Your task to perform on an android device: What's the weather going to be tomorrow? Image 0: 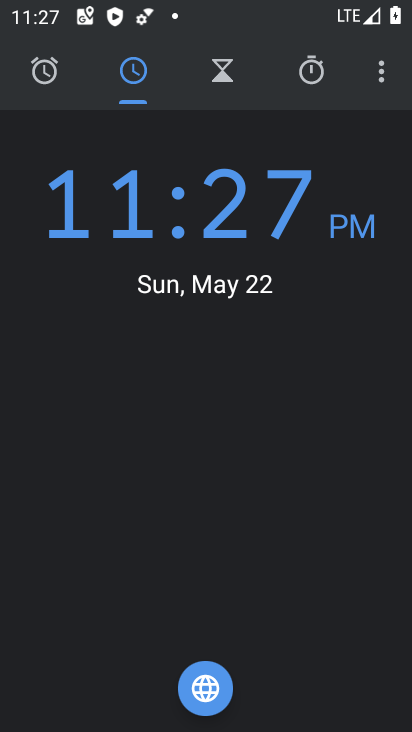
Step 0: press home button
Your task to perform on an android device: What's the weather going to be tomorrow? Image 1: 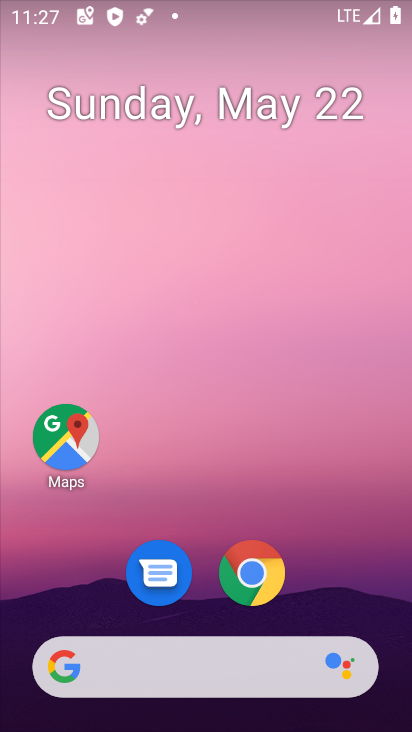
Step 1: click (222, 667)
Your task to perform on an android device: What's the weather going to be tomorrow? Image 2: 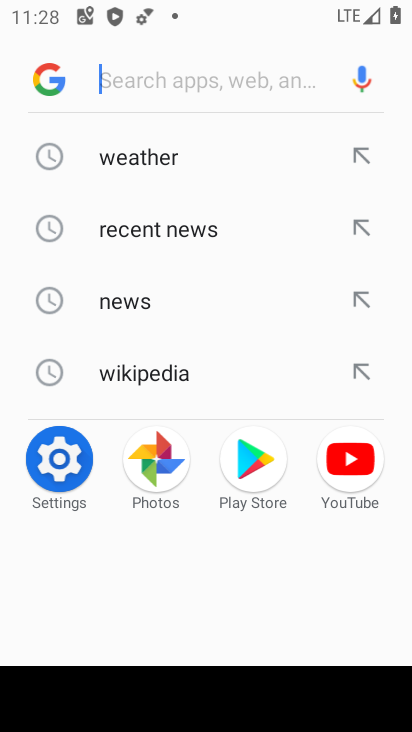
Step 2: type "what's the weather going to be tomorrow"
Your task to perform on an android device: What's the weather going to be tomorrow? Image 3: 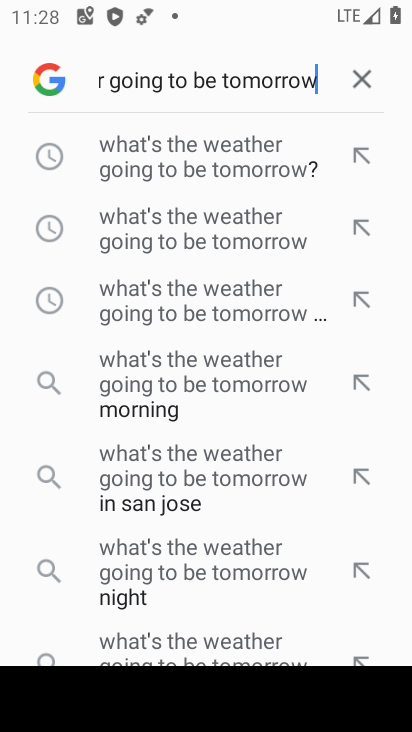
Step 3: click (154, 158)
Your task to perform on an android device: What's the weather going to be tomorrow? Image 4: 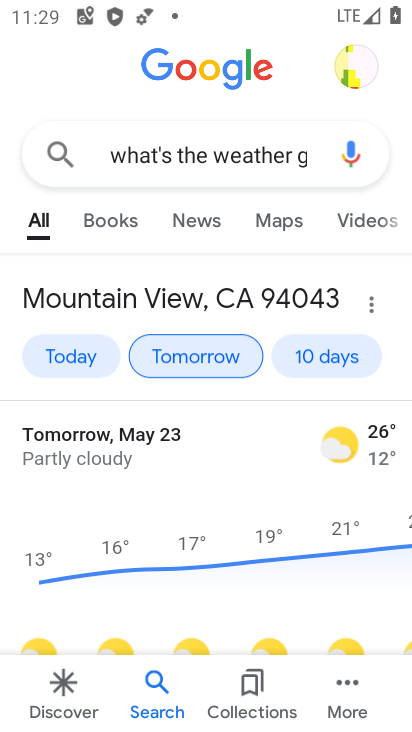
Step 4: task complete